Your task to perform on an android device: toggle airplane mode Image 0: 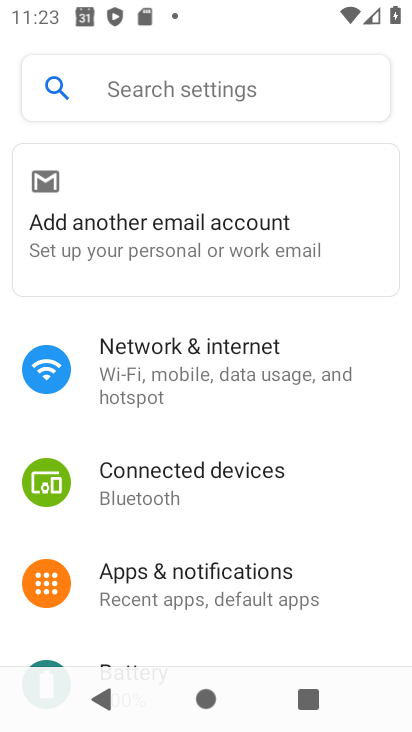
Step 0: press home button
Your task to perform on an android device: toggle airplane mode Image 1: 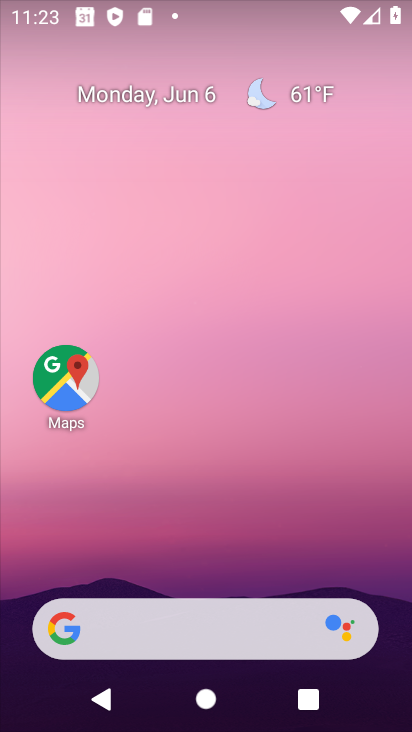
Step 1: drag from (232, 561) to (186, 64)
Your task to perform on an android device: toggle airplane mode Image 2: 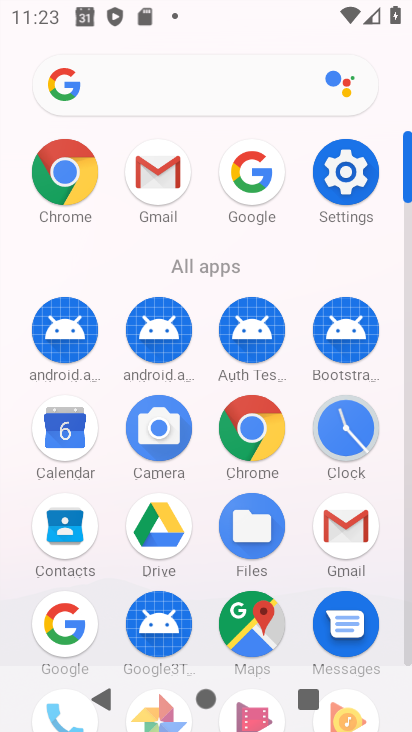
Step 2: click (350, 169)
Your task to perform on an android device: toggle airplane mode Image 3: 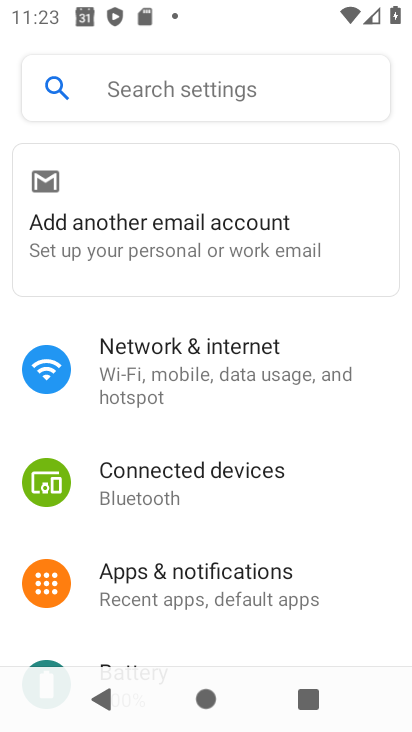
Step 3: click (218, 362)
Your task to perform on an android device: toggle airplane mode Image 4: 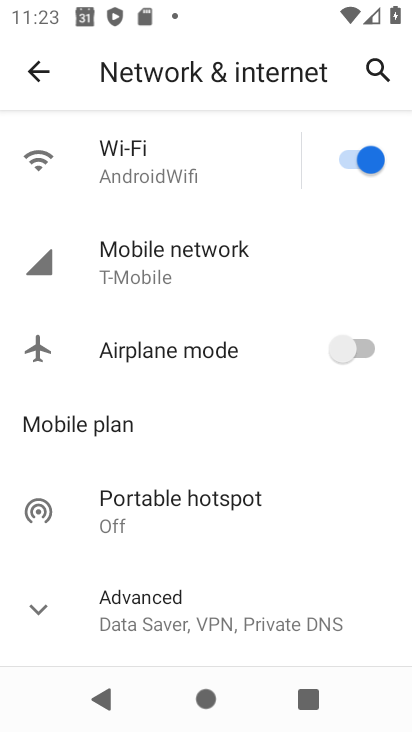
Step 4: click (350, 347)
Your task to perform on an android device: toggle airplane mode Image 5: 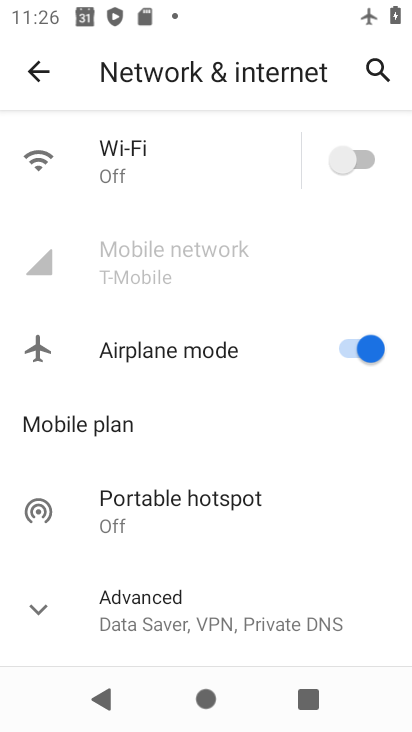
Step 5: task complete